Your task to perform on an android device: What's the weather today? Image 0: 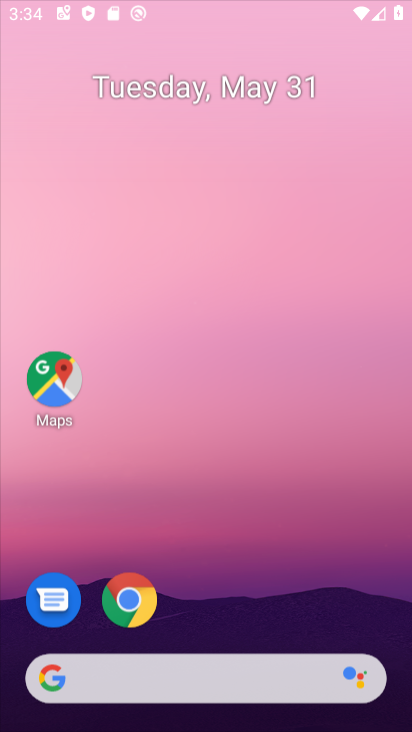
Step 0: press home button
Your task to perform on an android device: What's the weather today? Image 1: 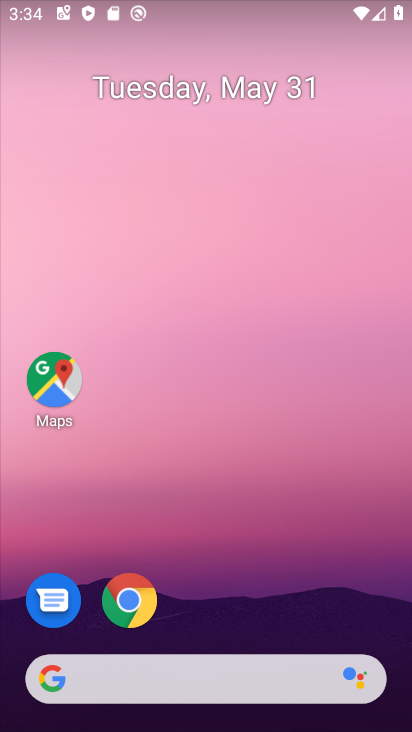
Step 1: drag from (19, 299) to (404, 288)
Your task to perform on an android device: What's the weather today? Image 2: 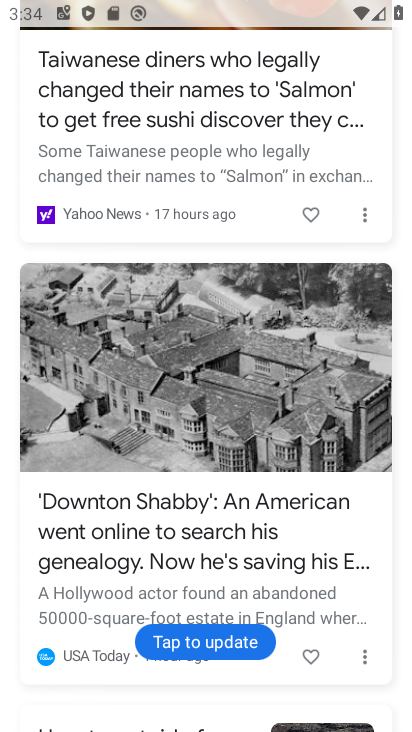
Step 2: drag from (174, 123) to (217, 671)
Your task to perform on an android device: What's the weather today? Image 3: 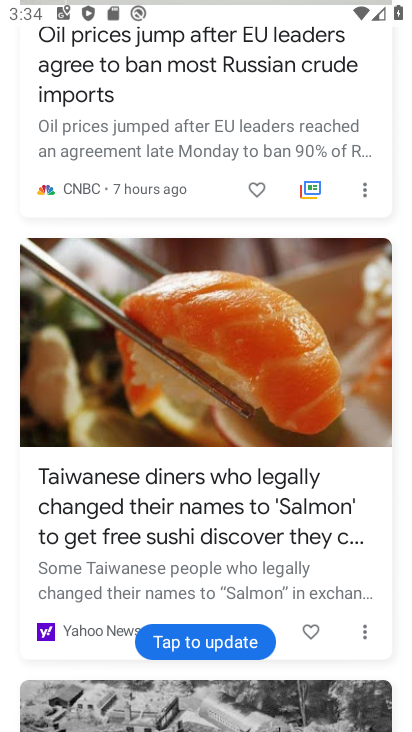
Step 3: drag from (276, 624) to (282, 710)
Your task to perform on an android device: What's the weather today? Image 4: 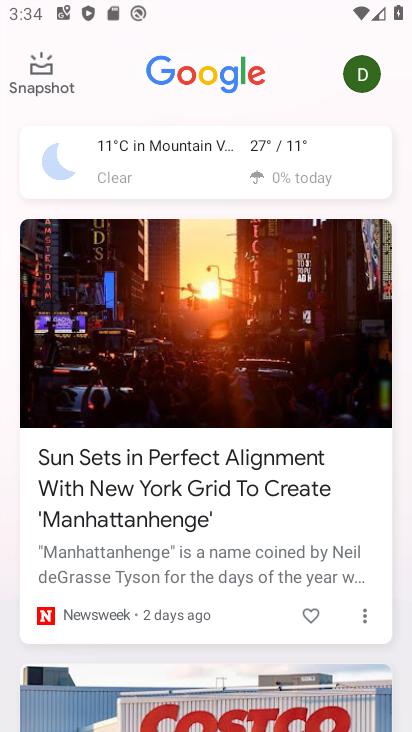
Step 4: click (241, 152)
Your task to perform on an android device: What's the weather today? Image 5: 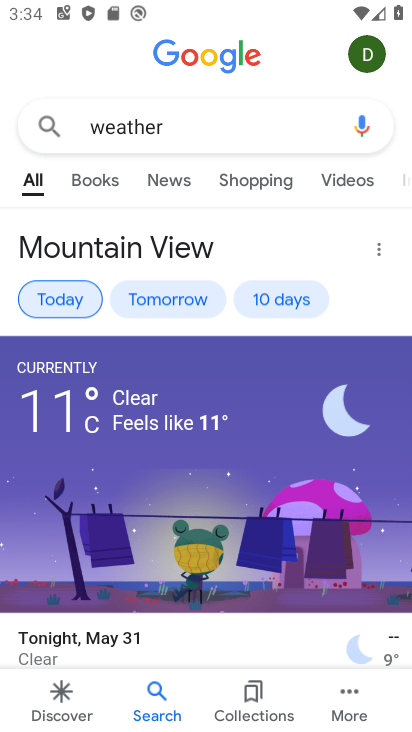
Step 5: task complete